Your task to perform on an android device: Open Chrome and go to the settings page Image 0: 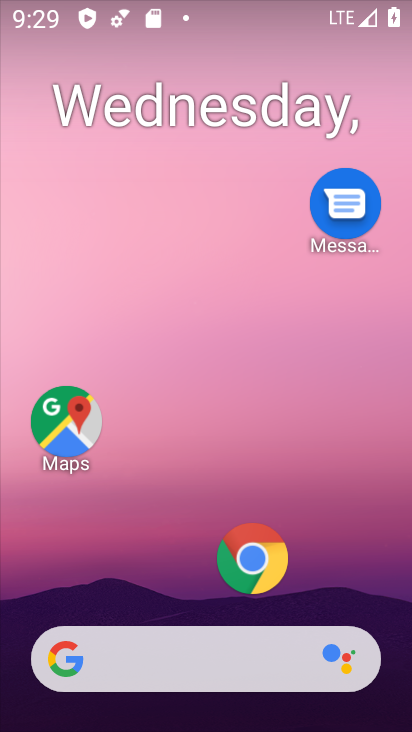
Step 0: click (387, 412)
Your task to perform on an android device: Open Chrome and go to the settings page Image 1: 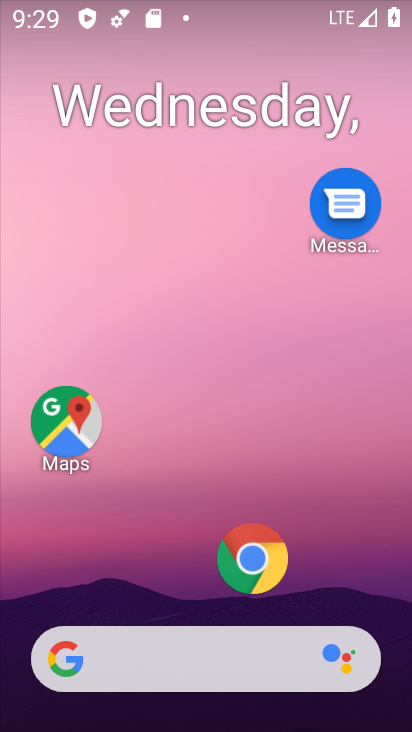
Step 1: click (267, 553)
Your task to perform on an android device: Open Chrome and go to the settings page Image 2: 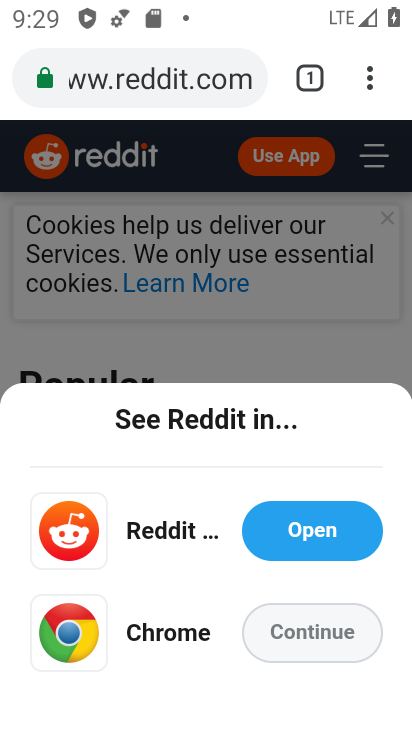
Step 2: task complete